Your task to perform on an android device: Clear the cart on walmart. Image 0: 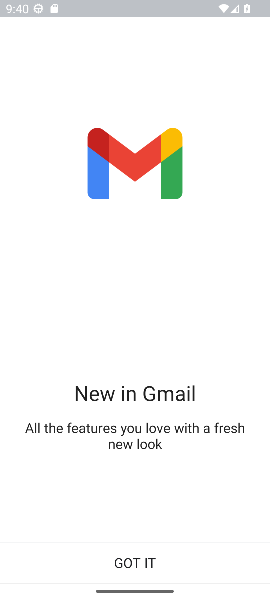
Step 0: press home button
Your task to perform on an android device: Clear the cart on walmart. Image 1: 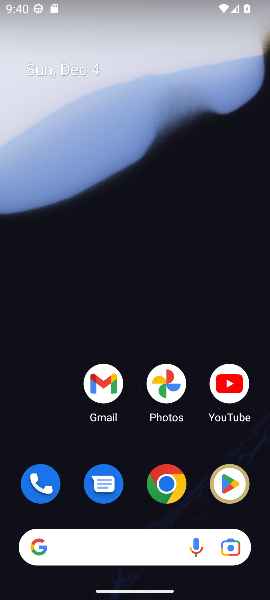
Step 1: click (166, 489)
Your task to perform on an android device: Clear the cart on walmart. Image 2: 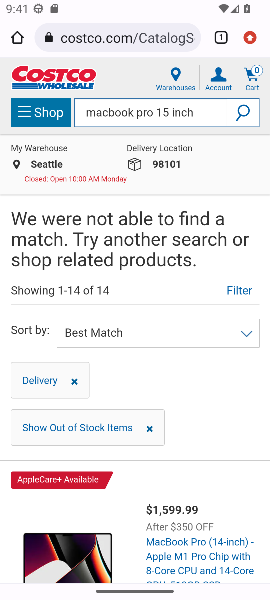
Step 2: click (118, 41)
Your task to perform on an android device: Clear the cart on walmart. Image 3: 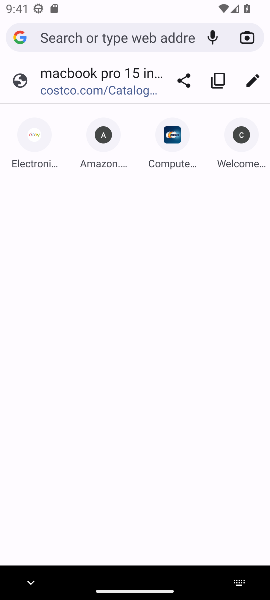
Step 3: type "walmart.com"
Your task to perform on an android device: Clear the cart on walmart. Image 4: 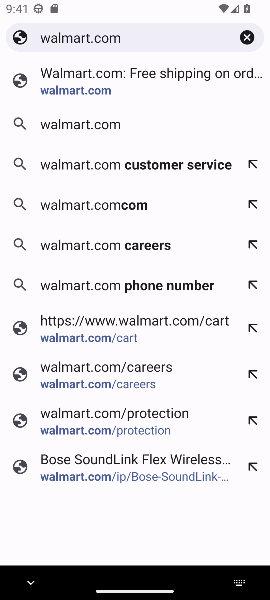
Step 4: click (82, 95)
Your task to perform on an android device: Clear the cart on walmart. Image 5: 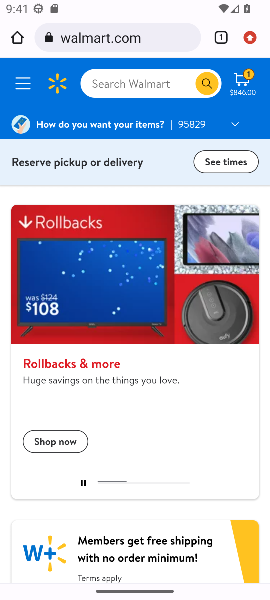
Step 5: click (249, 85)
Your task to perform on an android device: Clear the cart on walmart. Image 6: 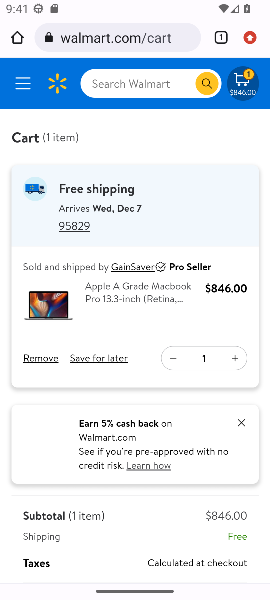
Step 6: click (34, 356)
Your task to perform on an android device: Clear the cart on walmart. Image 7: 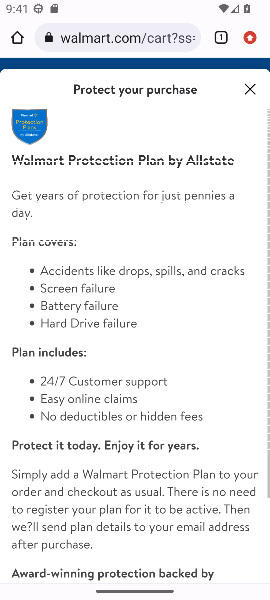
Step 7: click (248, 94)
Your task to perform on an android device: Clear the cart on walmart. Image 8: 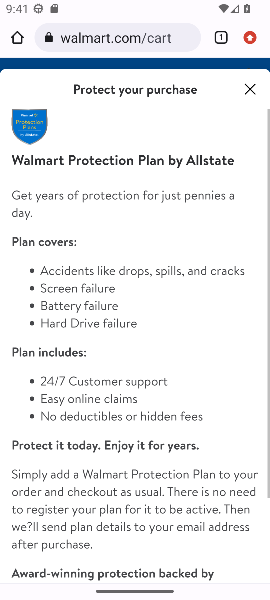
Step 8: click (251, 86)
Your task to perform on an android device: Clear the cart on walmart. Image 9: 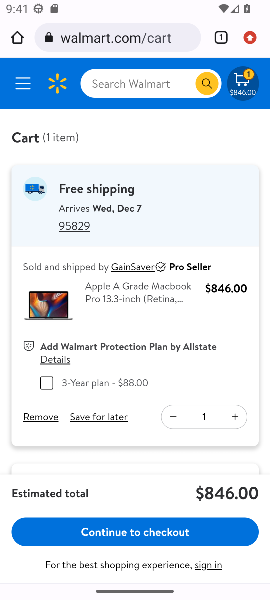
Step 9: click (35, 416)
Your task to perform on an android device: Clear the cart on walmart. Image 10: 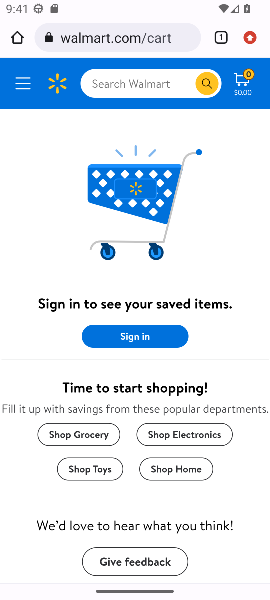
Step 10: task complete